Your task to perform on an android device: See recent photos Image 0: 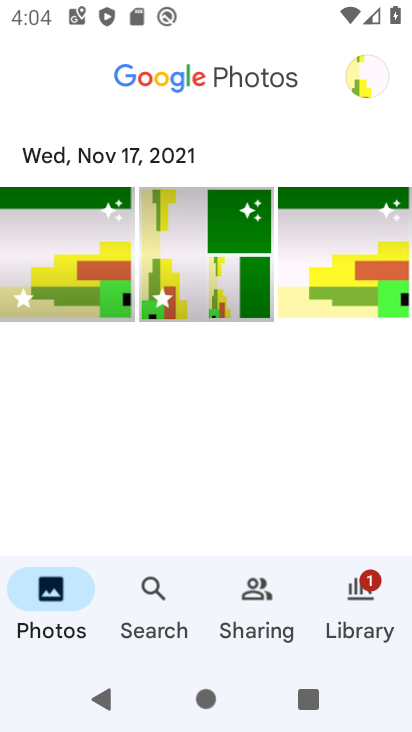
Step 0: drag from (374, 566) to (349, 391)
Your task to perform on an android device: See recent photos Image 1: 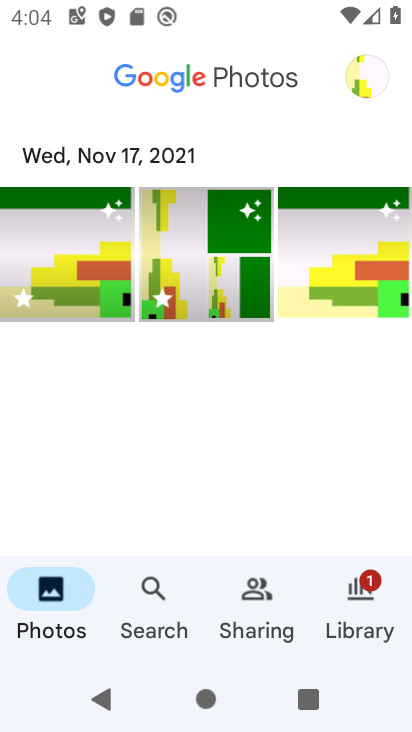
Step 1: task complete